Your task to perform on an android device: Open Google Chrome Image 0: 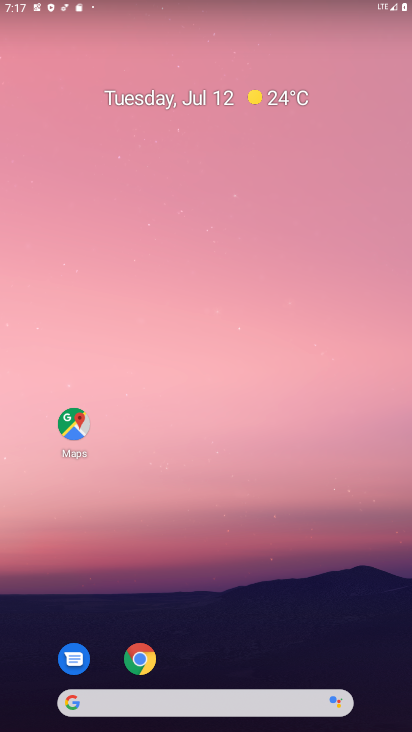
Step 0: drag from (346, 605) to (242, 1)
Your task to perform on an android device: Open Google Chrome Image 1: 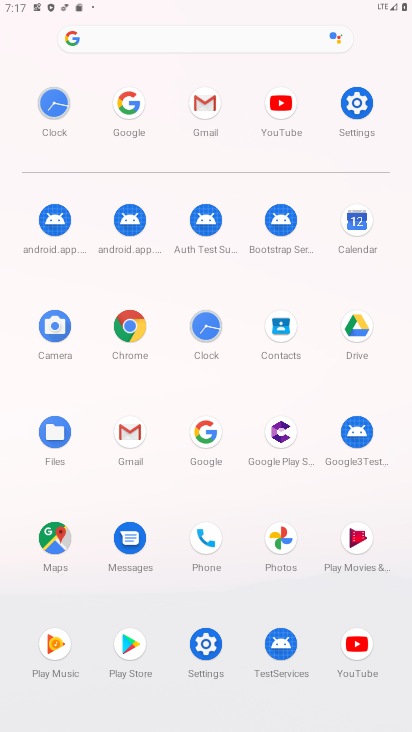
Step 1: click (127, 347)
Your task to perform on an android device: Open Google Chrome Image 2: 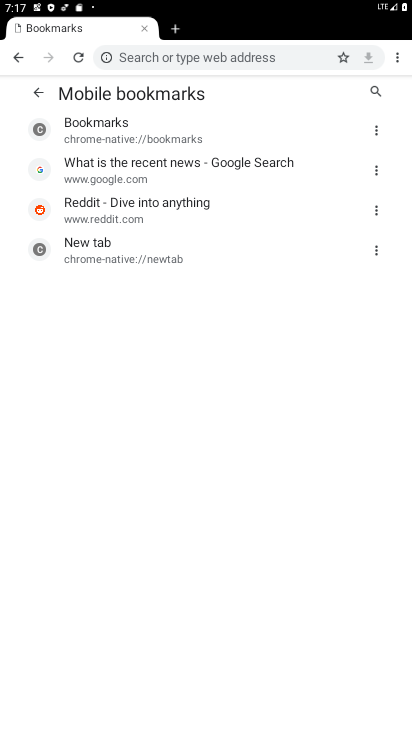
Step 2: press back button
Your task to perform on an android device: Open Google Chrome Image 3: 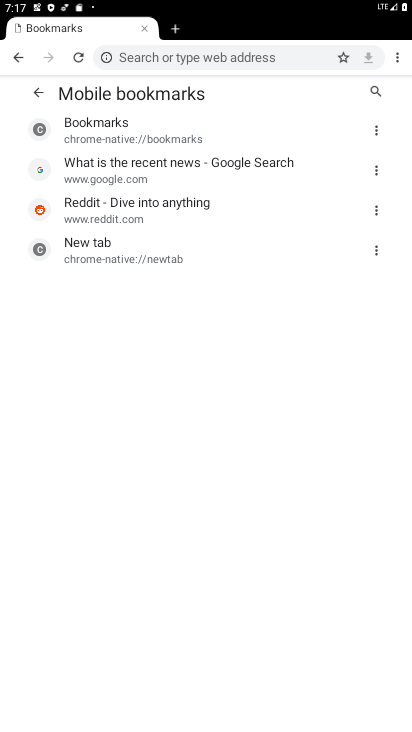
Step 3: press back button
Your task to perform on an android device: Open Google Chrome Image 4: 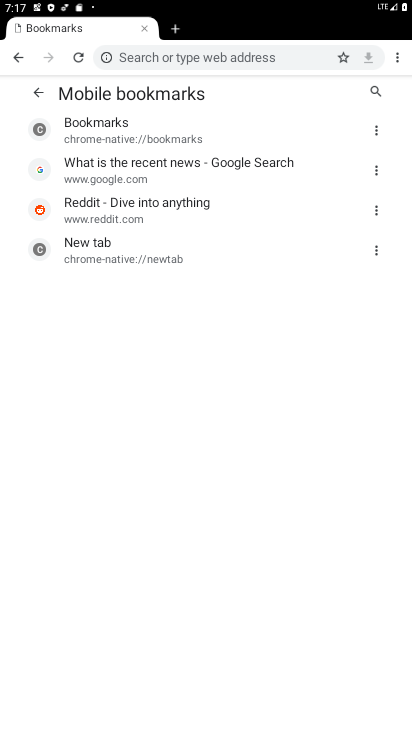
Step 4: press back button
Your task to perform on an android device: Open Google Chrome Image 5: 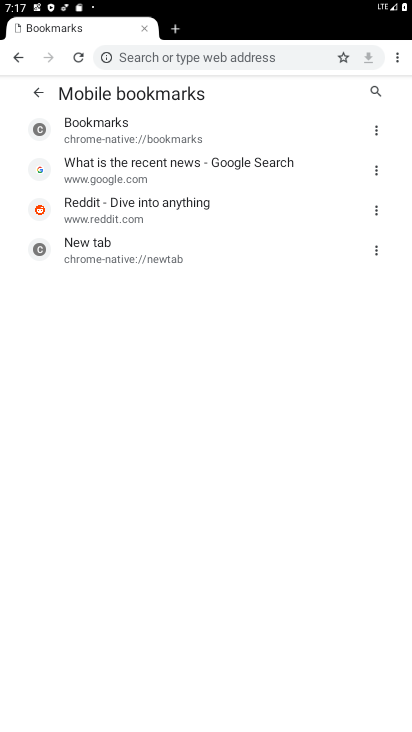
Step 5: press back button
Your task to perform on an android device: Open Google Chrome Image 6: 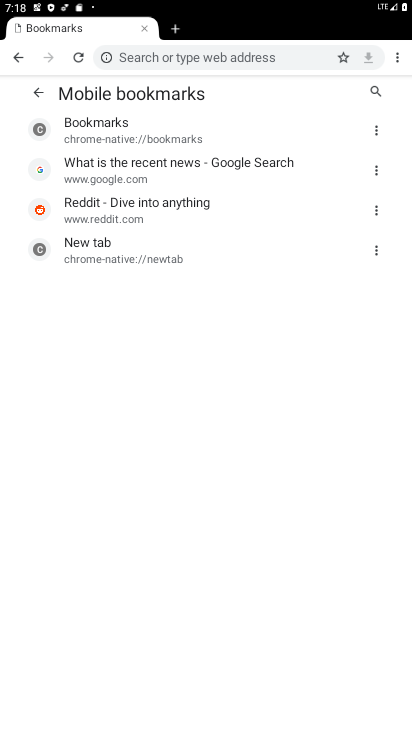
Step 6: press back button
Your task to perform on an android device: Open Google Chrome Image 7: 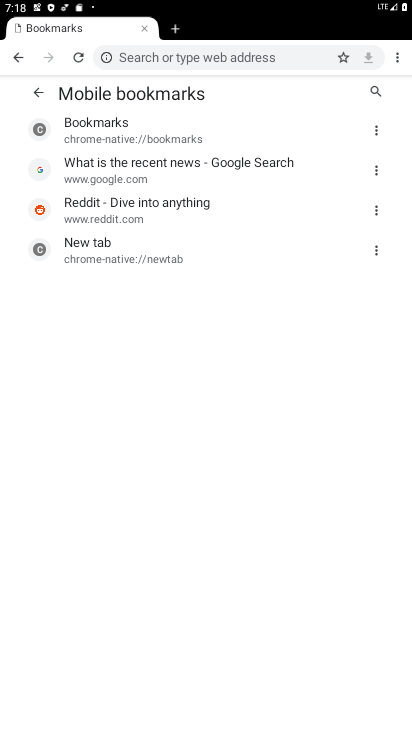
Step 7: press back button
Your task to perform on an android device: Open Google Chrome Image 8: 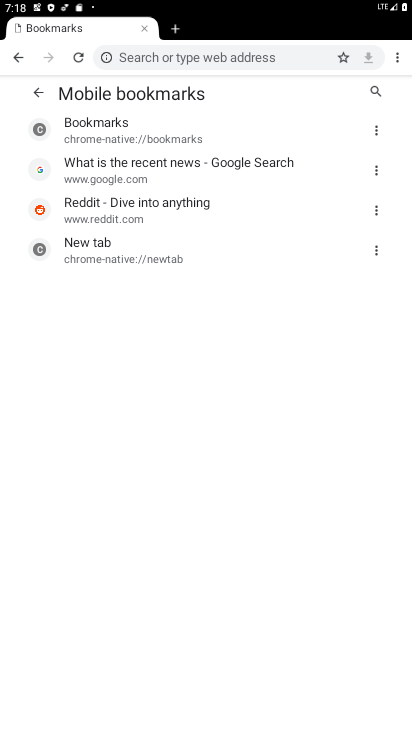
Step 8: click (140, 27)
Your task to perform on an android device: Open Google Chrome Image 9: 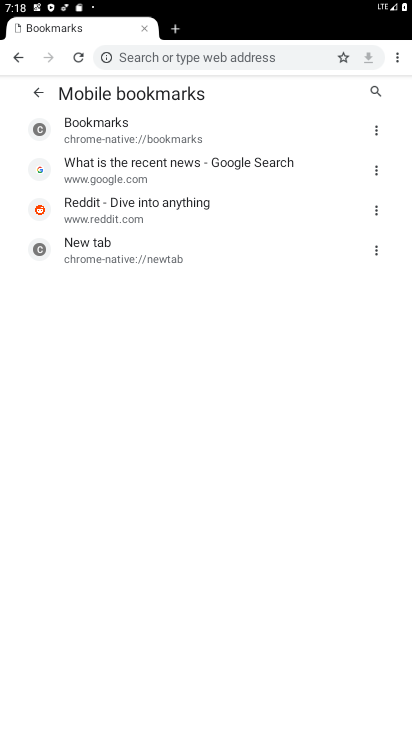
Step 9: click (143, 29)
Your task to perform on an android device: Open Google Chrome Image 10: 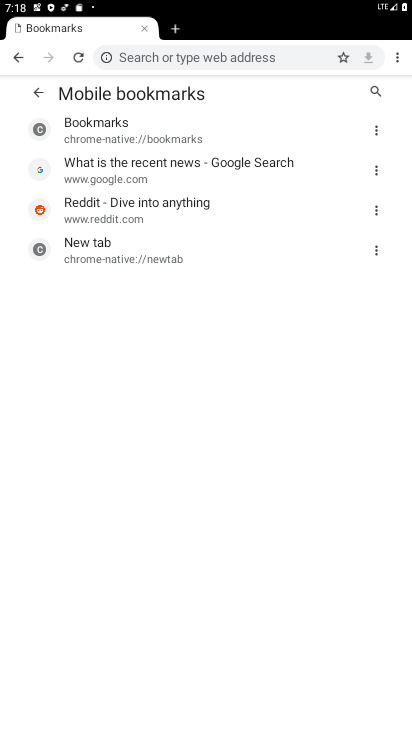
Step 10: click (140, 29)
Your task to perform on an android device: Open Google Chrome Image 11: 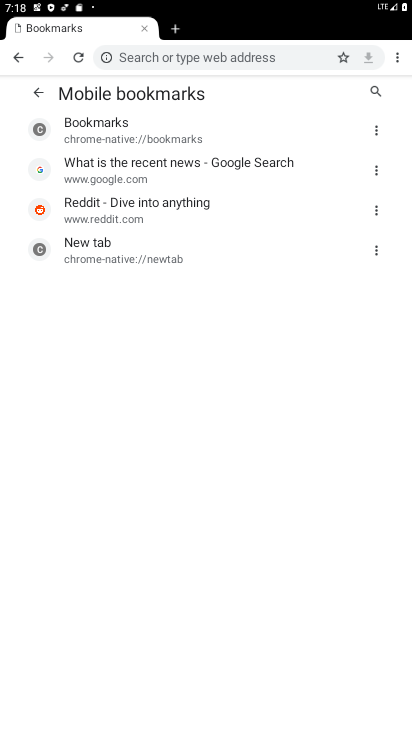
Step 11: click (170, 28)
Your task to perform on an android device: Open Google Chrome Image 12: 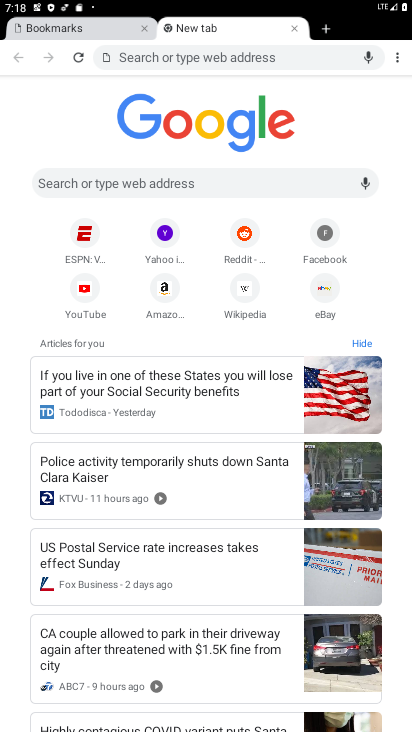
Step 12: task complete